Your task to perform on an android device: turn on airplane mode Image 0: 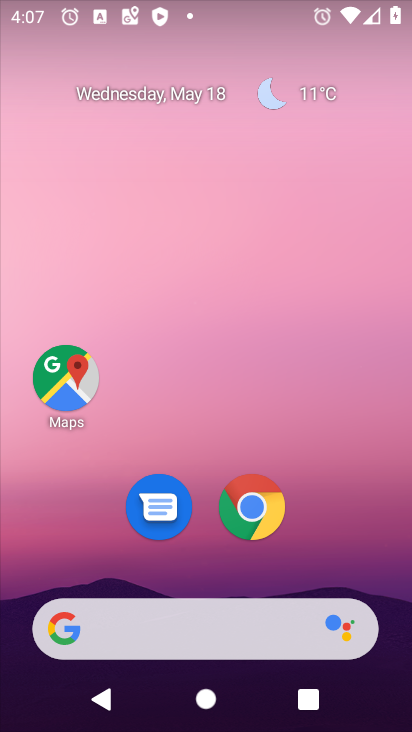
Step 0: drag from (395, 619) to (312, 145)
Your task to perform on an android device: turn on airplane mode Image 1: 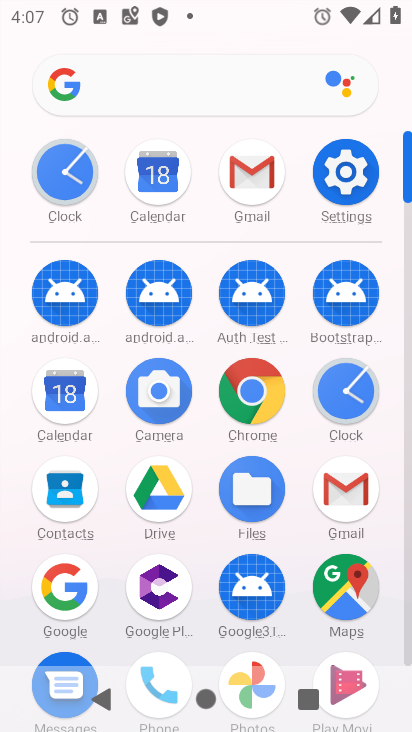
Step 1: click (410, 640)
Your task to perform on an android device: turn on airplane mode Image 2: 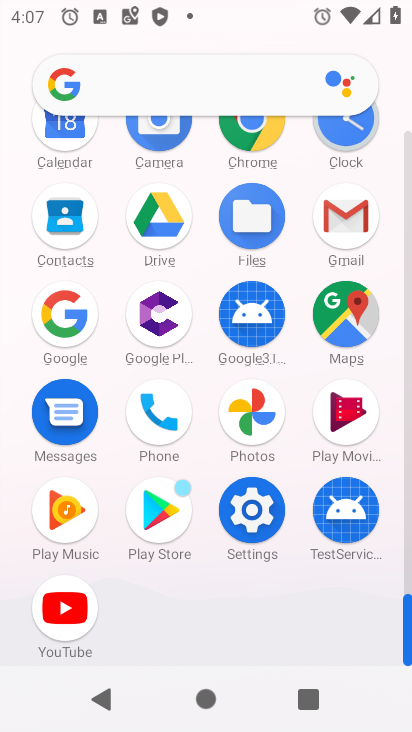
Step 2: click (249, 512)
Your task to perform on an android device: turn on airplane mode Image 3: 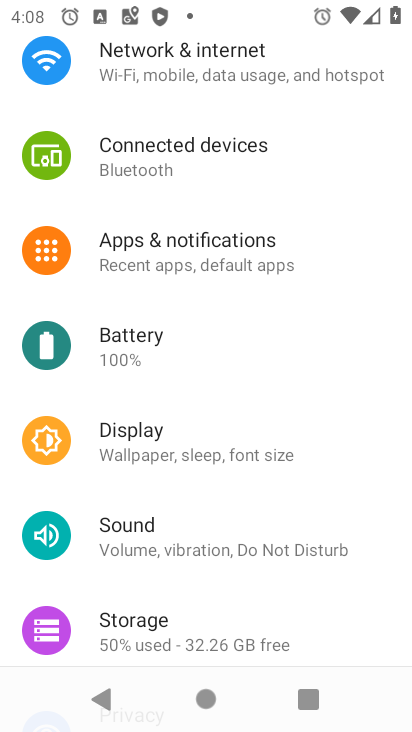
Step 3: click (171, 64)
Your task to perform on an android device: turn on airplane mode Image 4: 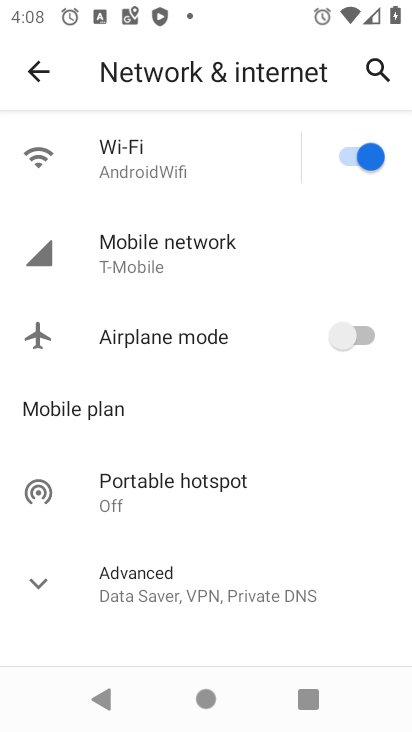
Step 4: click (366, 334)
Your task to perform on an android device: turn on airplane mode Image 5: 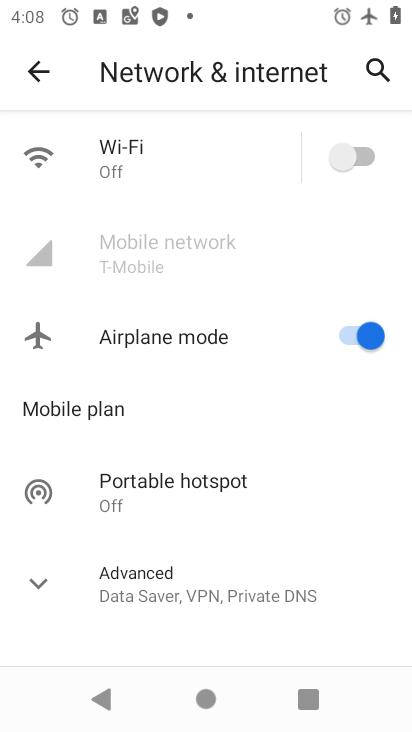
Step 5: task complete